Your task to perform on an android device: open a bookmark in the chrome app Image 0: 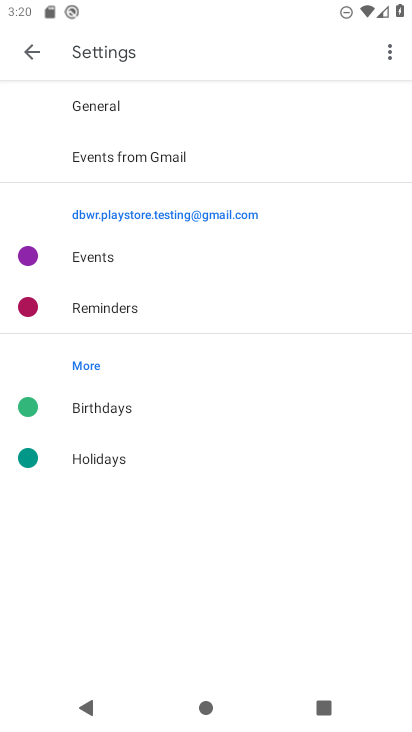
Step 0: press home button
Your task to perform on an android device: open a bookmark in the chrome app Image 1: 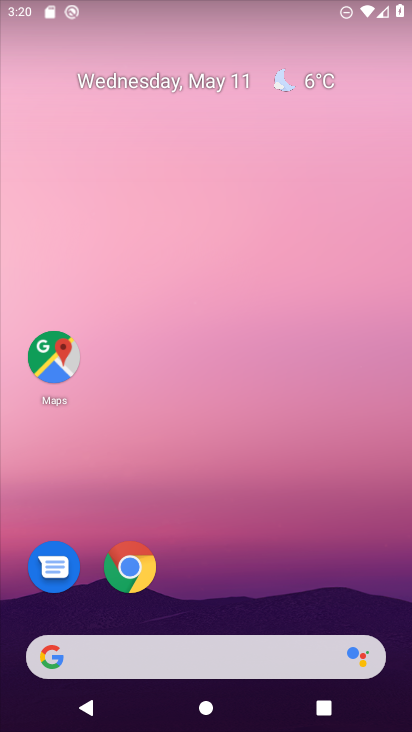
Step 1: click (133, 566)
Your task to perform on an android device: open a bookmark in the chrome app Image 2: 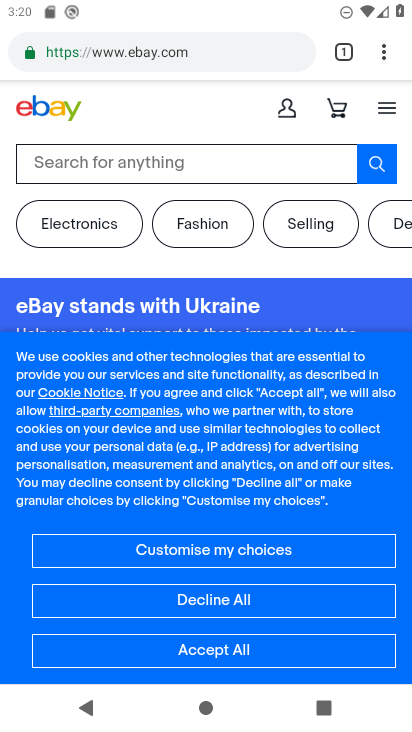
Step 2: click (385, 53)
Your task to perform on an android device: open a bookmark in the chrome app Image 3: 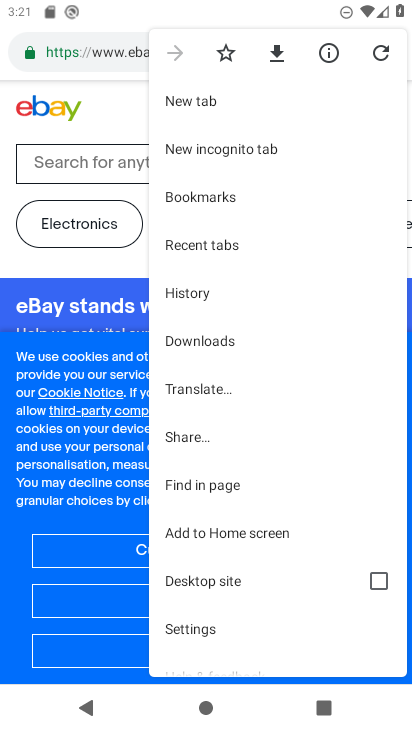
Step 3: click (223, 199)
Your task to perform on an android device: open a bookmark in the chrome app Image 4: 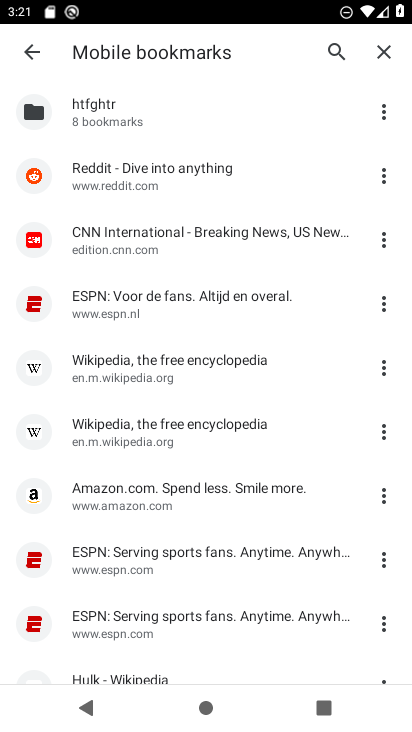
Step 4: drag from (265, 558) to (162, 76)
Your task to perform on an android device: open a bookmark in the chrome app Image 5: 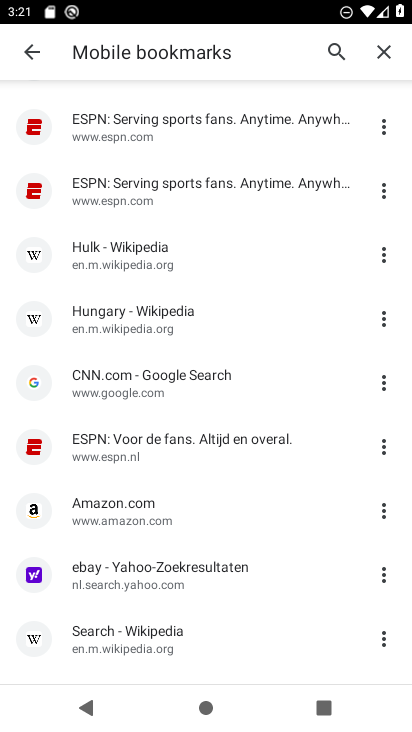
Step 5: click (189, 643)
Your task to perform on an android device: open a bookmark in the chrome app Image 6: 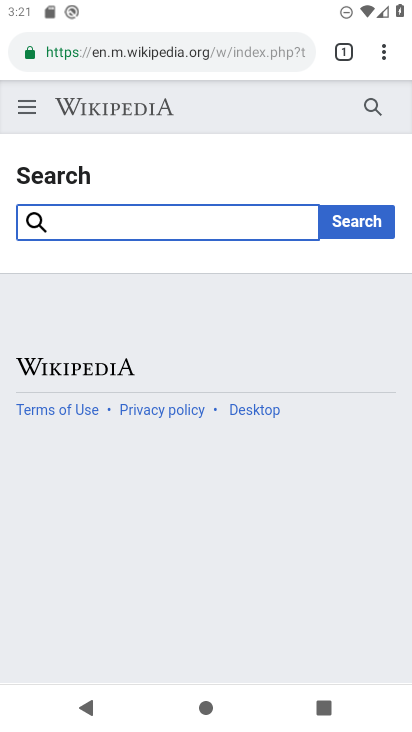
Step 6: task complete